Your task to perform on an android device: change the upload size in google photos Image 0: 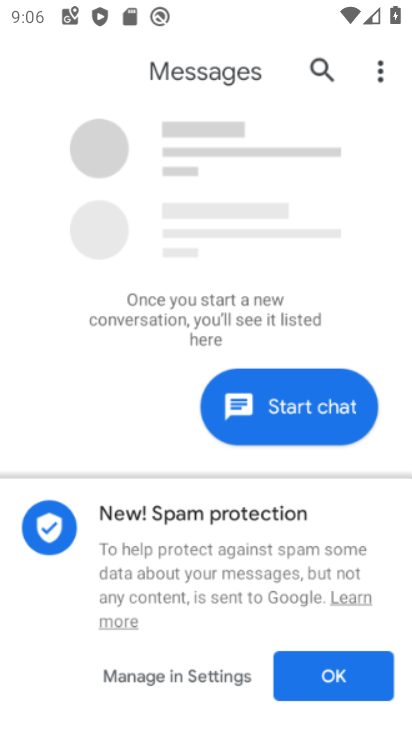
Step 0: drag from (53, 611) to (234, 117)
Your task to perform on an android device: change the upload size in google photos Image 1: 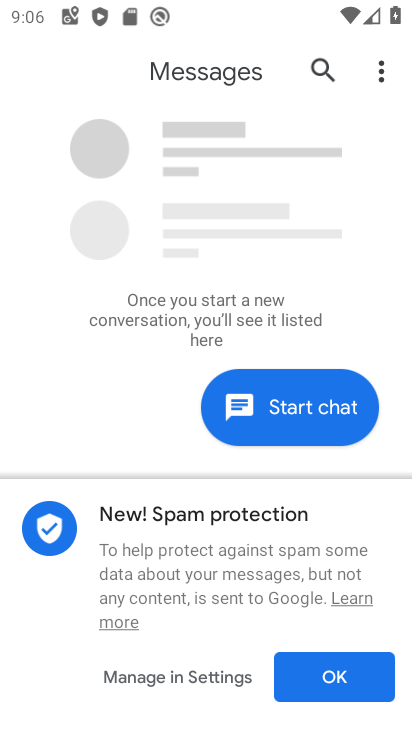
Step 1: press home button
Your task to perform on an android device: change the upload size in google photos Image 2: 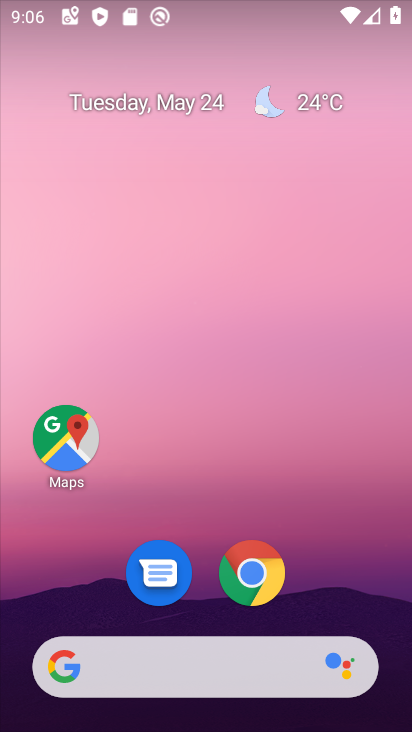
Step 2: drag from (75, 611) to (223, 136)
Your task to perform on an android device: change the upload size in google photos Image 3: 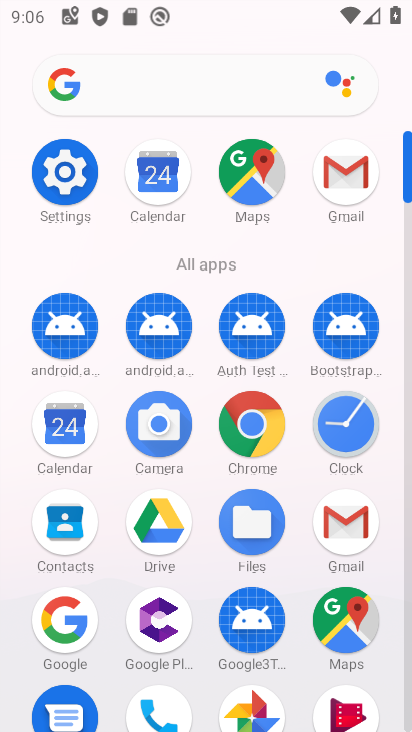
Step 3: drag from (208, 592) to (283, 342)
Your task to perform on an android device: change the upload size in google photos Image 4: 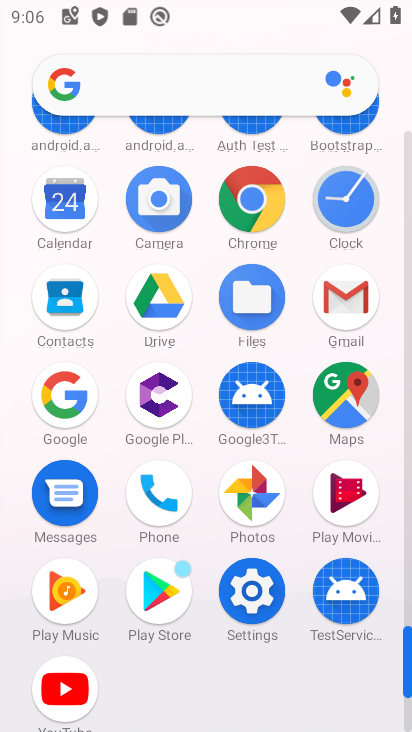
Step 4: click (254, 510)
Your task to perform on an android device: change the upload size in google photos Image 5: 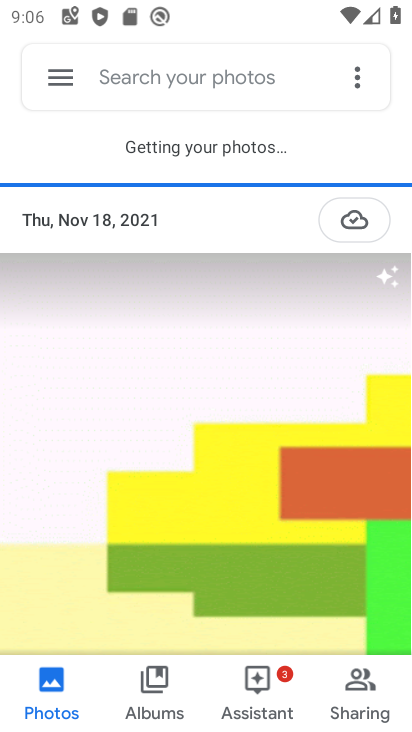
Step 5: click (76, 76)
Your task to perform on an android device: change the upload size in google photos Image 6: 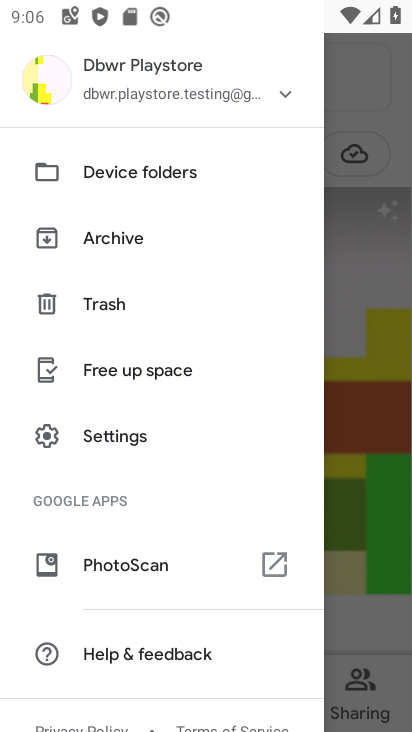
Step 6: drag from (144, 636) to (210, 339)
Your task to perform on an android device: change the upload size in google photos Image 7: 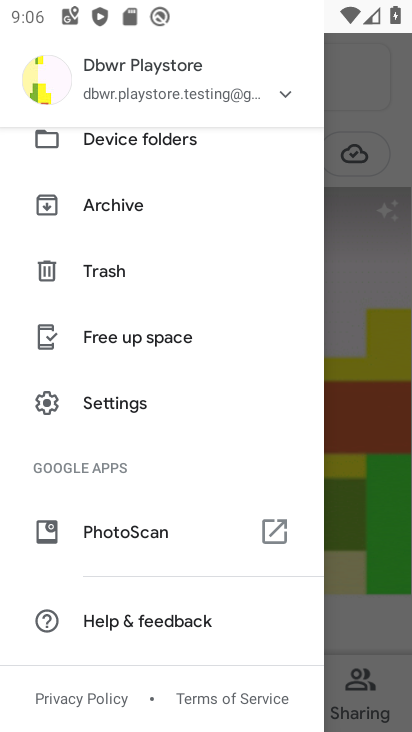
Step 7: click (140, 410)
Your task to perform on an android device: change the upload size in google photos Image 8: 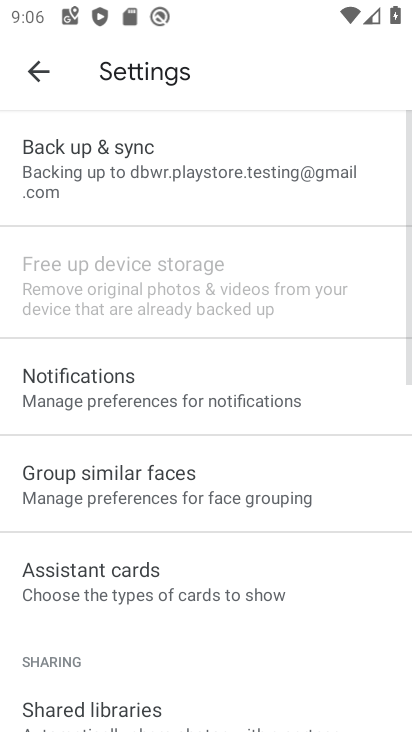
Step 8: click (165, 206)
Your task to perform on an android device: change the upload size in google photos Image 9: 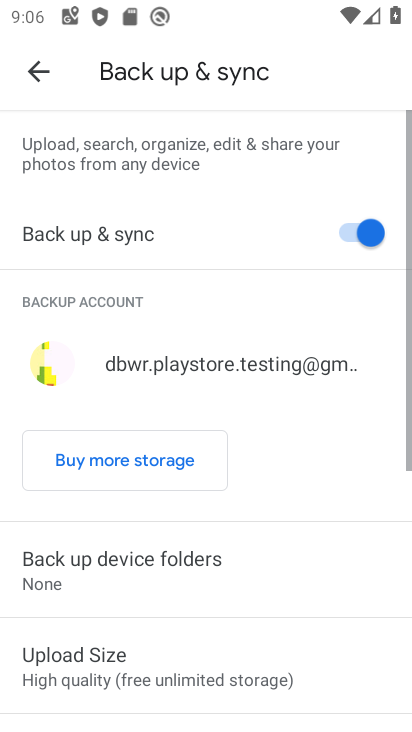
Step 9: drag from (132, 645) to (240, 315)
Your task to perform on an android device: change the upload size in google photos Image 10: 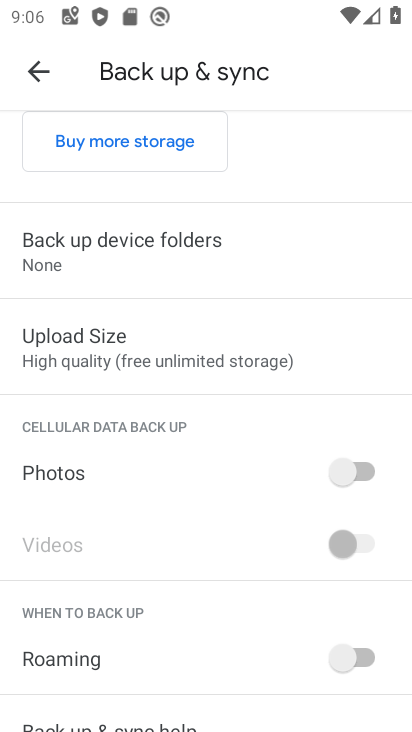
Step 10: click (191, 347)
Your task to perform on an android device: change the upload size in google photos Image 11: 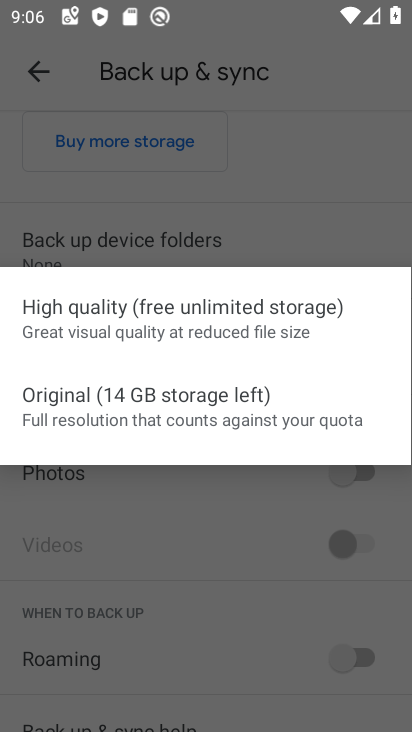
Step 11: press back button
Your task to perform on an android device: change the upload size in google photos Image 12: 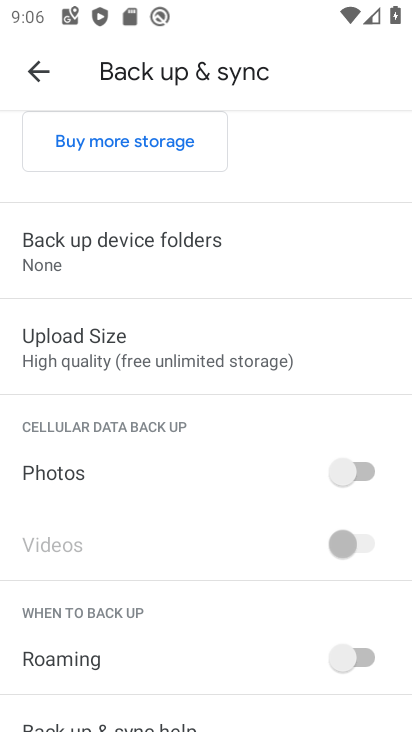
Step 12: click (129, 363)
Your task to perform on an android device: change the upload size in google photos Image 13: 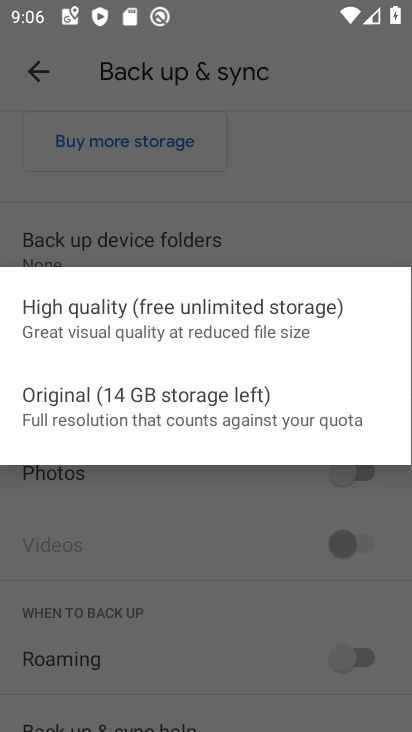
Step 13: click (140, 395)
Your task to perform on an android device: change the upload size in google photos Image 14: 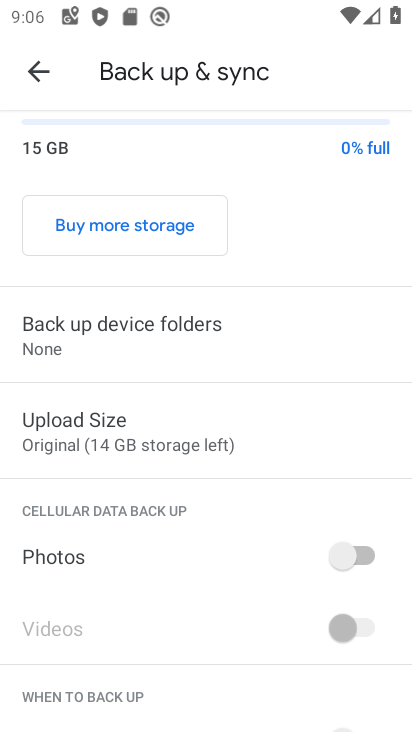
Step 14: task complete